Your task to perform on an android device: turn vacation reply on in the gmail app Image 0: 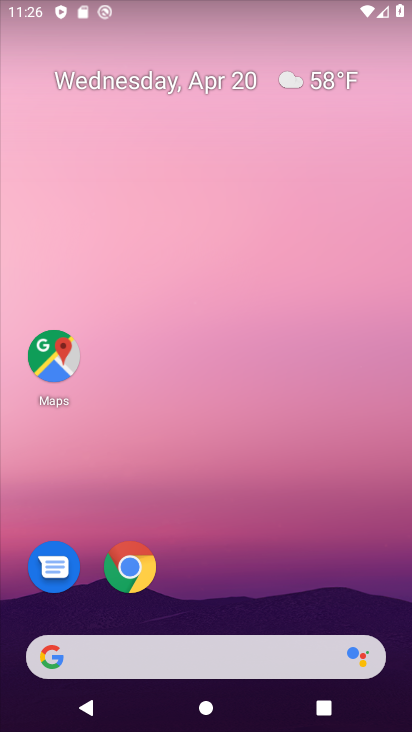
Step 0: drag from (322, 609) to (231, 158)
Your task to perform on an android device: turn vacation reply on in the gmail app Image 1: 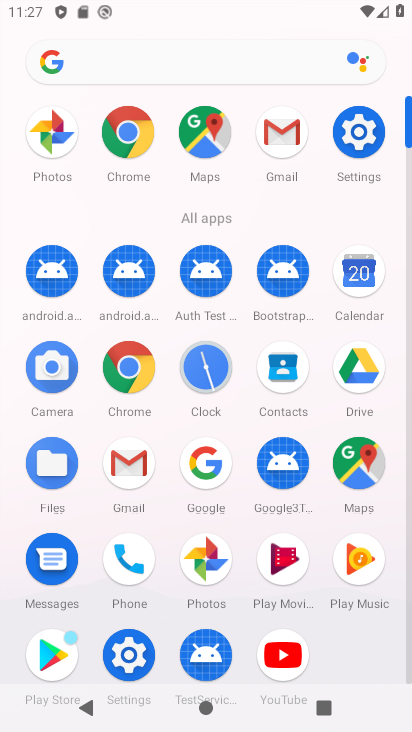
Step 1: click (276, 137)
Your task to perform on an android device: turn vacation reply on in the gmail app Image 2: 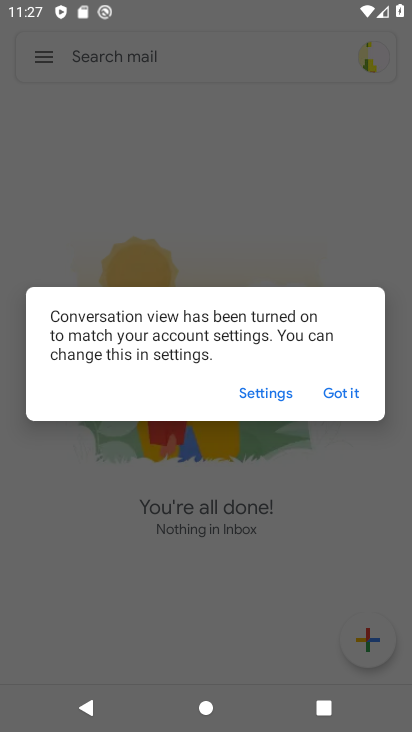
Step 2: click (351, 395)
Your task to perform on an android device: turn vacation reply on in the gmail app Image 3: 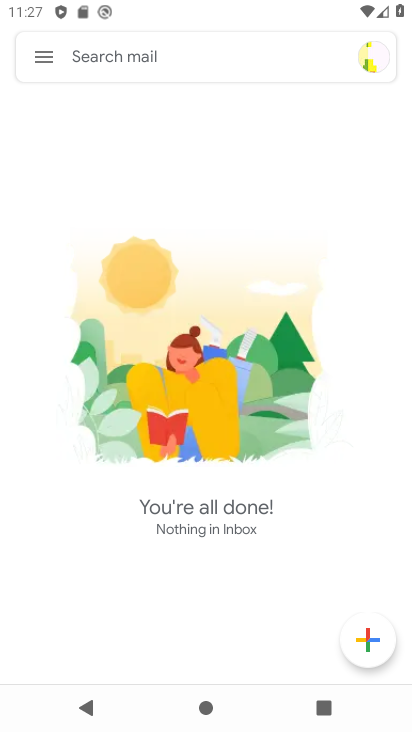
Step 3: click (43, 53)
Your task to perform on an android device: turn vacation reply on in the gmail app Image 4: 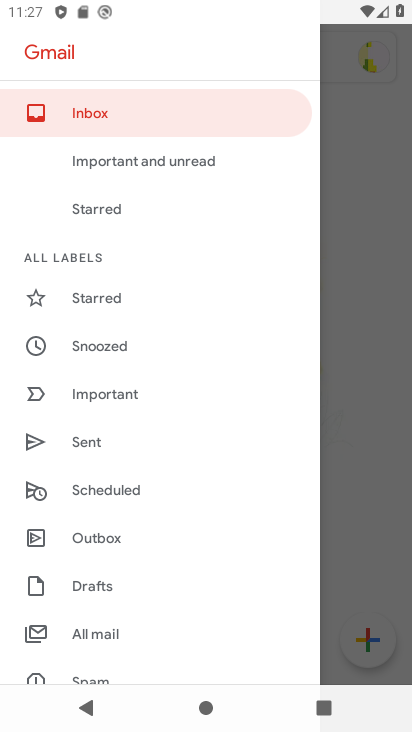
Step 4: drag from (184, 642) to (218, 204)
Your task to perform on an android device: turn vacation reply on in the gmail app Image 5: 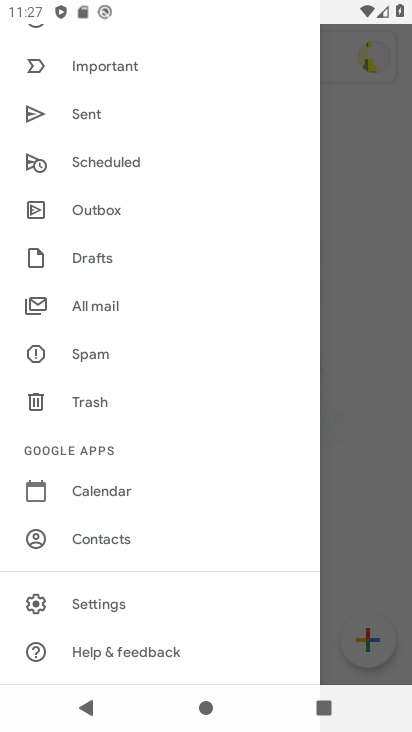
Step 5: click (217, 597)
Your task to perform on an android device: turn vacation reply on in the gmail app Image 6: 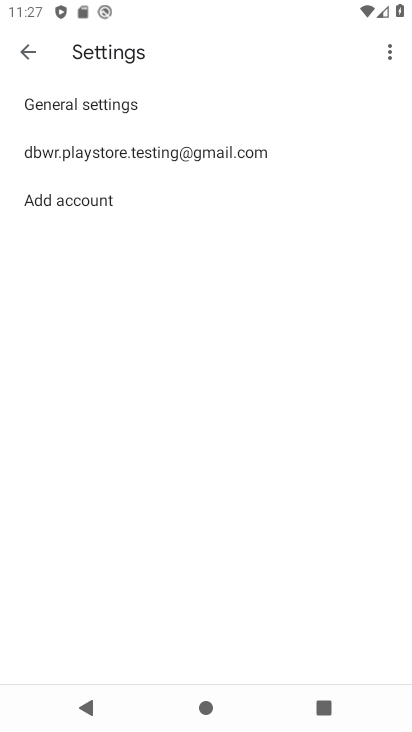
Step 6: click (243, 165)
Your task to perform on an android device: turn vacation reply on in the gmail app Image 7: 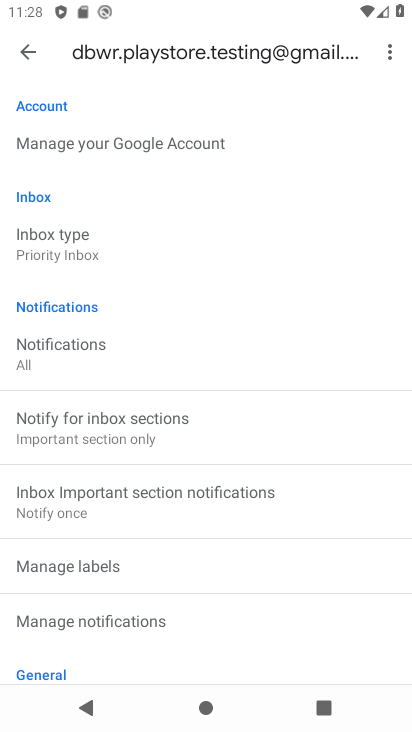
Step 7: drag from (205, 633) to (230, 291)
Your task to perform on an android device: turn vacation reply on in the gmail app Image 8: 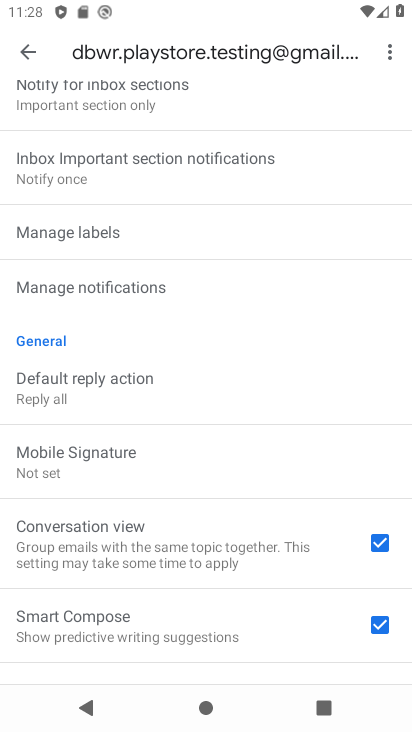
Step 8: drag from (228, 576) to (261, 161)
Your task to perform on an android device: turn vacation reply on in the gmail app Image 9: 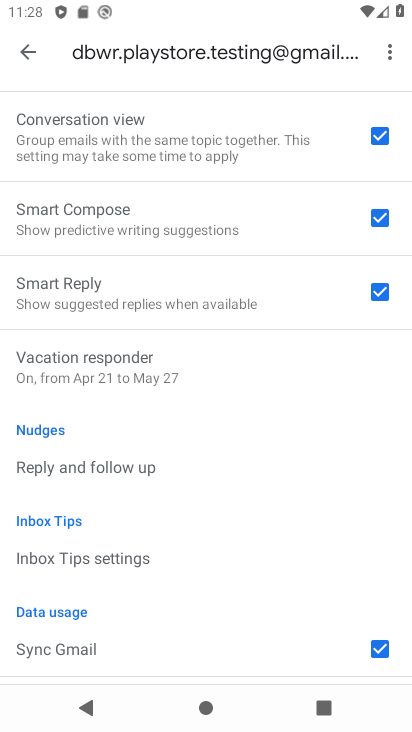
Step 9: click (249, 359)
Your task to perform on an android device: turn vacation reply on in the gmail app Image 10: 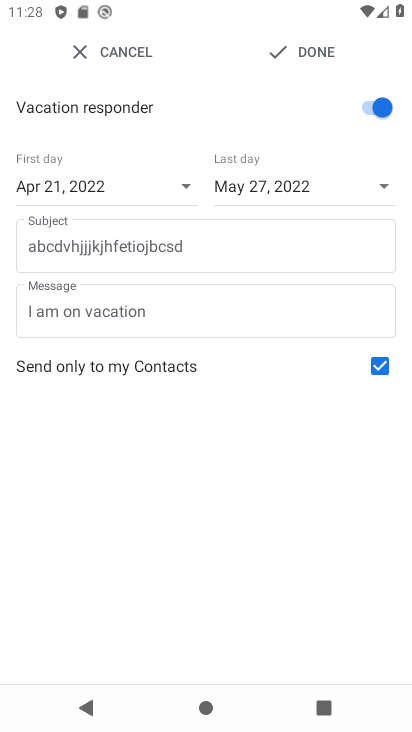
Step 10: click (372, 102)
Your task to perform on an android device: turn vacation reply on in the gmail app Image 11: 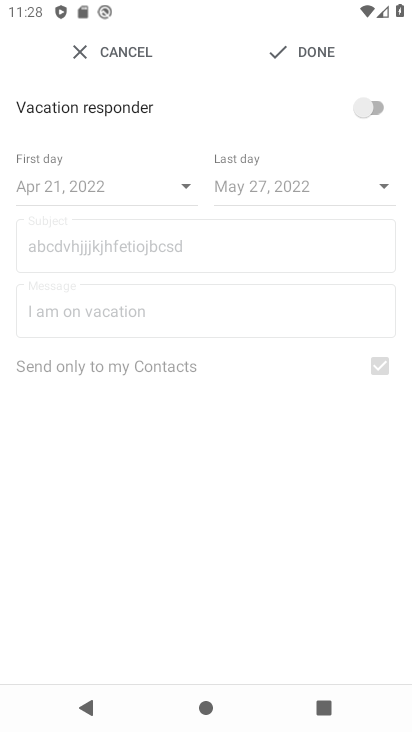
Step 11: click (372, 102)
Your task to perform on an android device: turn vacation reply on in the gmail app Image 12: 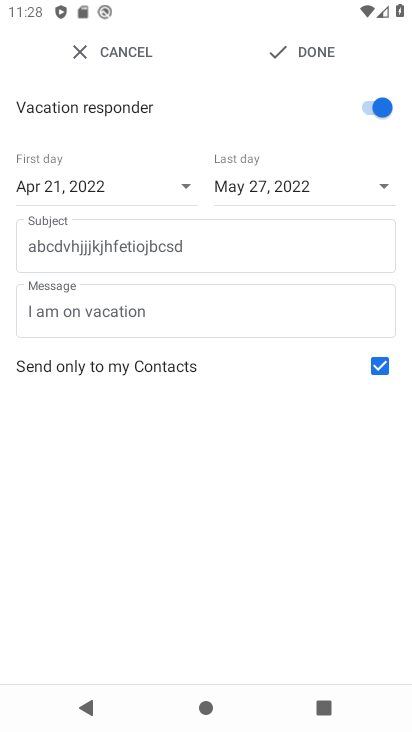
Step 12: click (316, 57)
Your task to perform on an android device: turn vacation reply on in the gmail app Image 13: 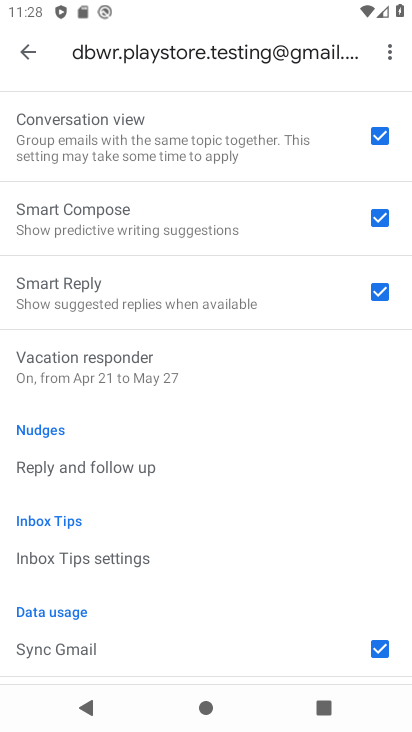
Step 13: task complete